Your task to perform on an android device: Empty the shopping cart on costco.com. Add macbook to the cart on costco.com Image 0: 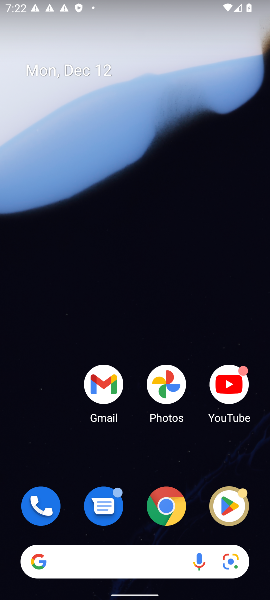
Step 0: click (148, 567)
Your task to perform on an android device: Empty the shopping cart on costco.com. Add macbook to the cart on costco.com Image 1: 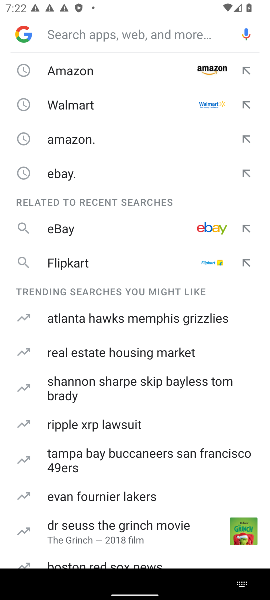
Step 1: type "costco"
Your task to perform on an android device: Empty the shopping cart on costco.com. Add macbook to the cart on costco.com Image 2: 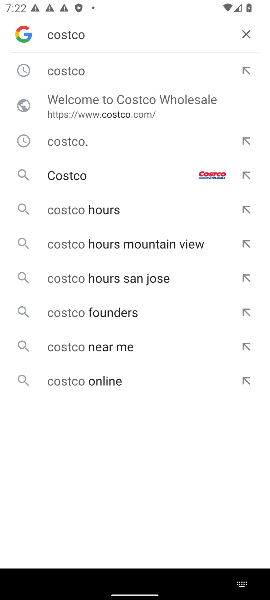
Step 2: click (137, 182)
Your task to perform on an android device: Empty the shopping cart on costco.com. Add macbook to the cart on costco.com Image 3: 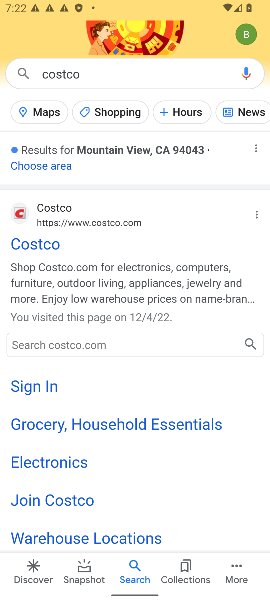
Step 3: click (50, 241)
Your task to perform on an android device: Empty the shopping cart on costco.com. Add macbook to the cart on costco.com Image 4: 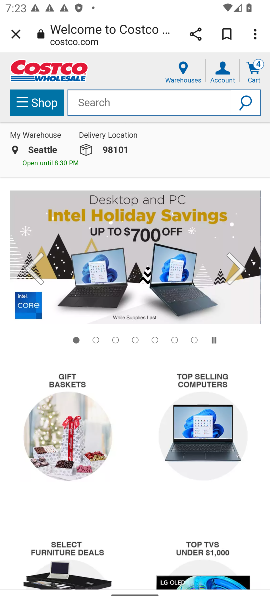
Step 4: click (134, 112)
Your task to perform on an android device: Empty the shopping cart on costco.com. Add macbook to the cart on costco.com Image 5: 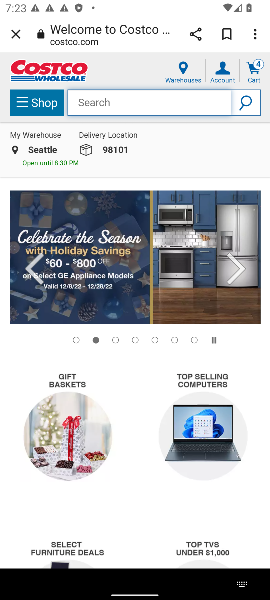
Step 5: type "macbook"
Your task to perform on an android device: Empty the shopping cart on costco.com. Add macbook to the cart on costco.com Image 6: 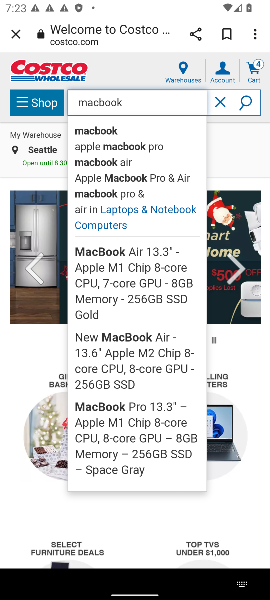
Step 6: click (119, 153)
Your task to perform on an android device: Empty the shopping cart on costco.com. Add macbook to the cart on costco.com Image 7: 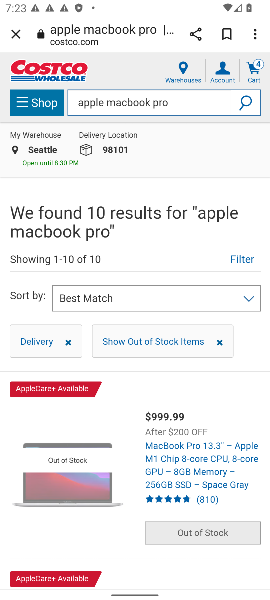
Step 7: click (175, 466)
Your task to perform on an android device: Empty the shopping cart on costco.com. Add macbook to the cart on costco.com Image 8: 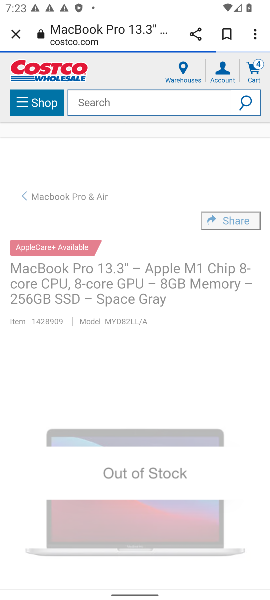
Step 8: drag from (150, 511) to (127, 268)
Your task to perform on an android device: Empty the shopping cart on costco.com. Add macbook to the cart on costco.com Image 9: 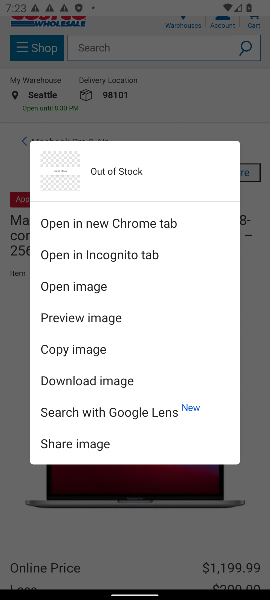
Step 9: click (16, 455)
Your task to perform on an android device: Empty the shopping cart on costco.com. Add macbook to the cart on costco.com Image 10: 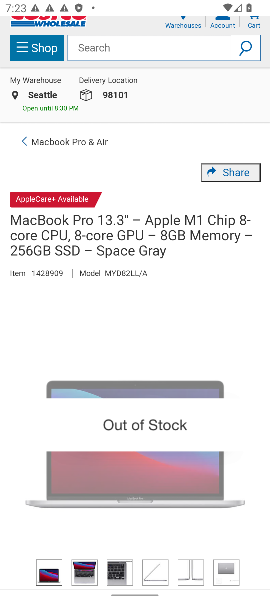
Step 10: drag from (148, 536) to (198, 261)
Your task to perform on an android device: Empty the shopping cart on costco.com. Add macbook to the cart on costco.com Image 11: 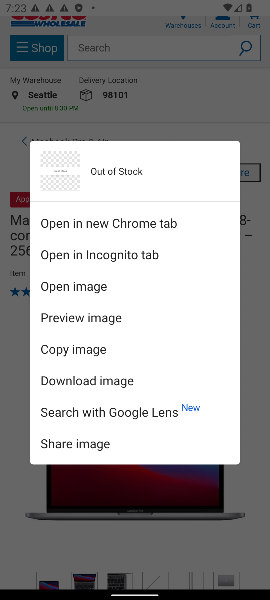
Step 11: click (254, 498)
Your task to perform on an android device: Empty the shopping cart on costco.com. Add macbook to the cart on costco.com Image 12: 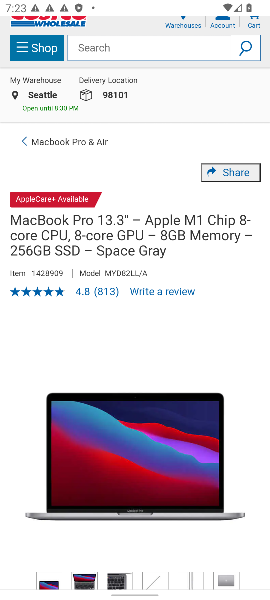
Step 12: task complete